Your task to perform on an android device: delete location history Image 0: 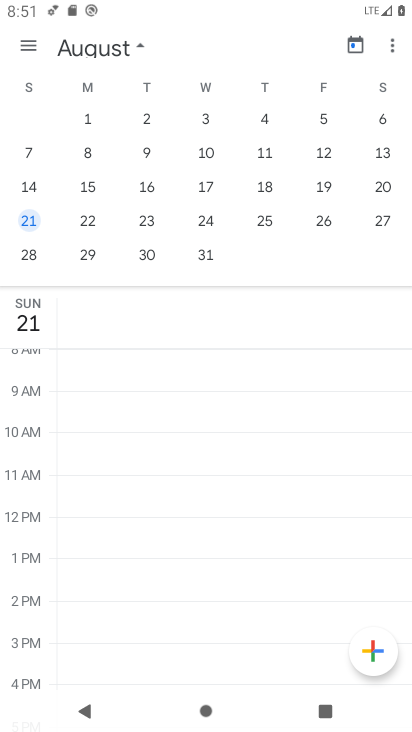
Step 0: press home button
Your task to perform on an android device: delete location history Image 1: 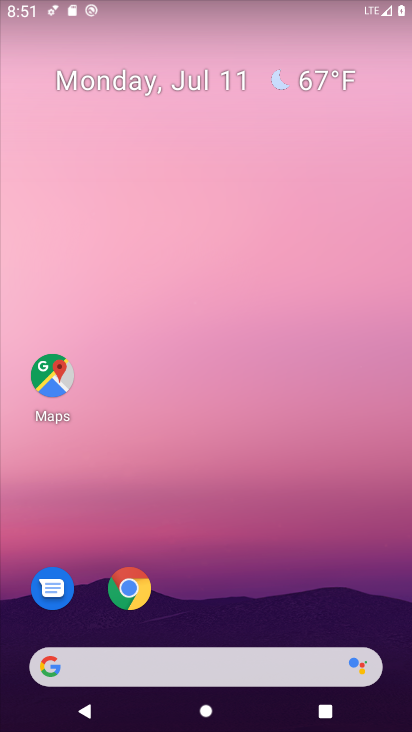
Step 1: click (46, 390)
Your task to perform on an android device: delete location history Image 2: 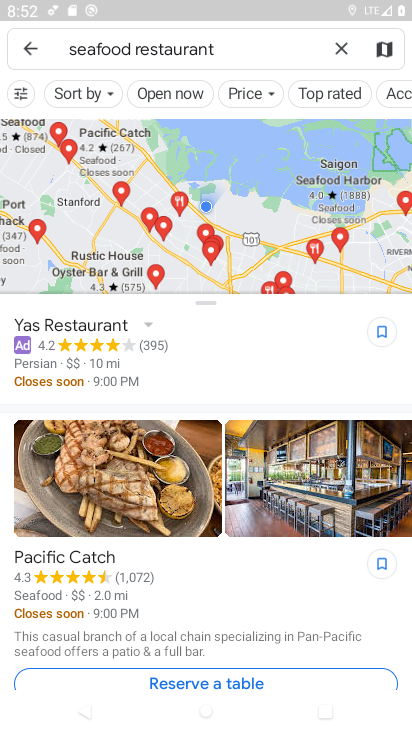
Step 2: click (34, 50)
Your task to perform on an android device: delete location history Image 3: 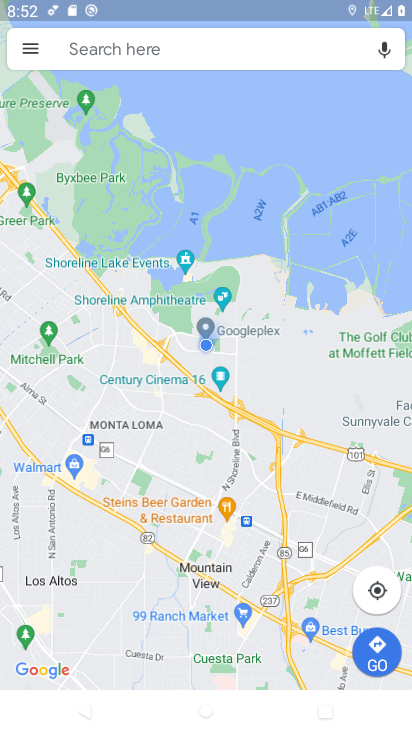
Step 3: click (34, 50)
Your task to perform on an android device: delete location history Image 4: 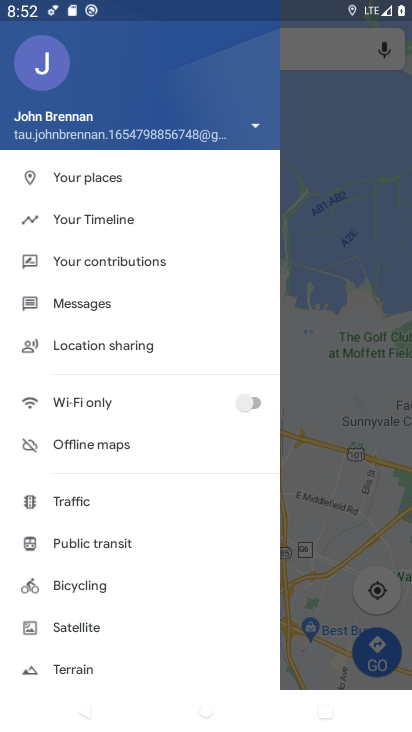
Step 4: click (128, 216)
Your task to perform on an android device: delete location history Image 5: 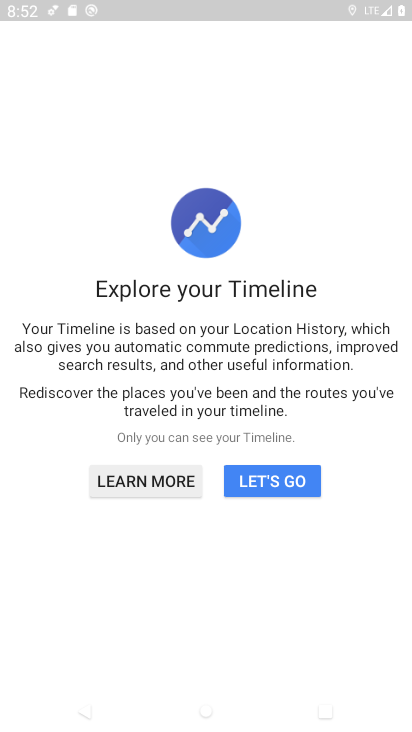
Step 5: click (261, 470)
Your task to perform on an android device: delete location history Image 6: 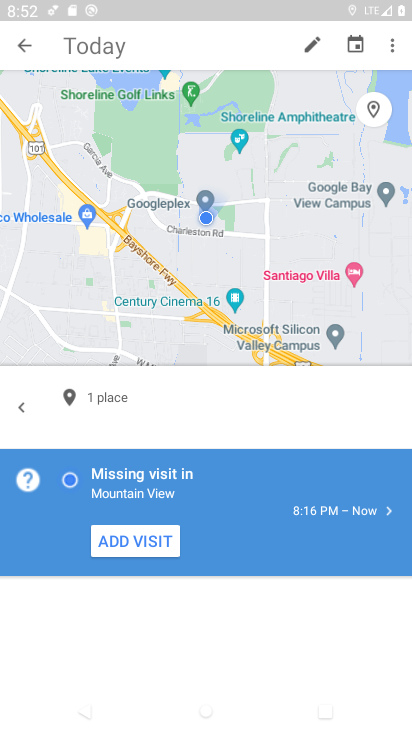
Step 6: click (389, 50)
Your task to perform on an android device: delete location history Image 7: 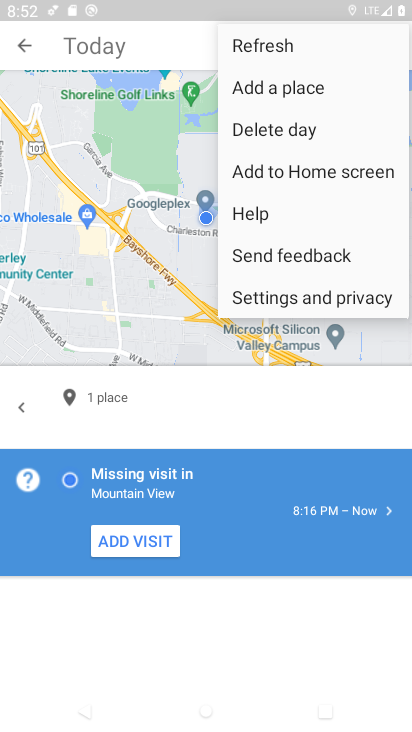
Step 7: click (300, 293)
Your task to perform on an android device: delete location history Image 8: 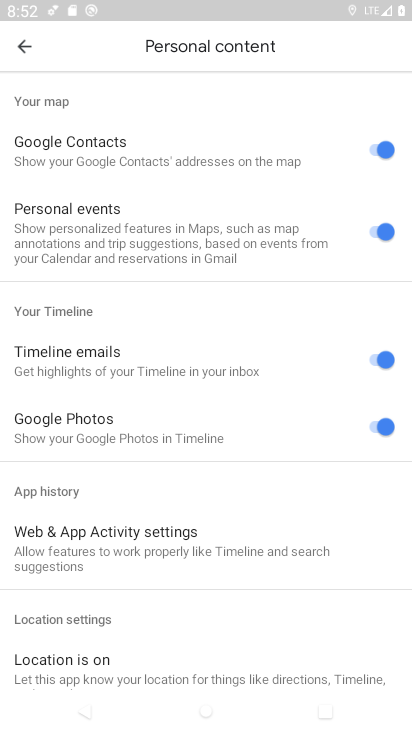
Step 8: drag from (217, 657) to (225, 193)
Your task to perform on an android device: delete location history Image 9: 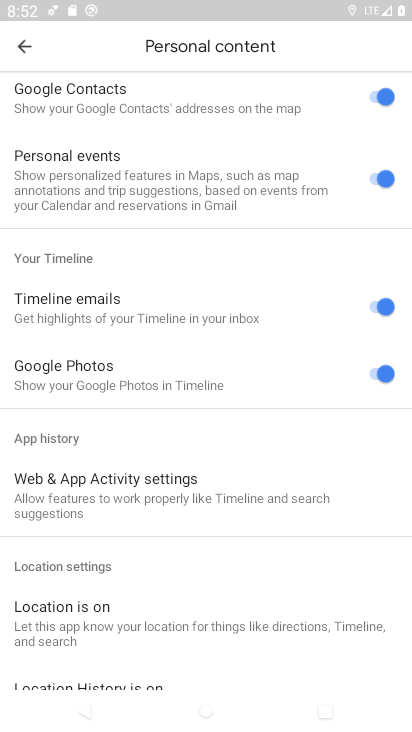
Step 9: drag from (173, 557) to (269, 18)
Your task to perform on an android device: delete location history Image 10: 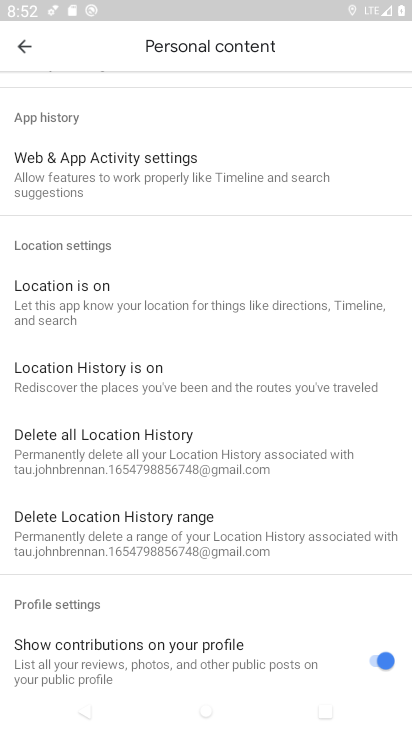
Step 10: click (166, 434)
Your task to perform on an android device: delete location history Image 11: 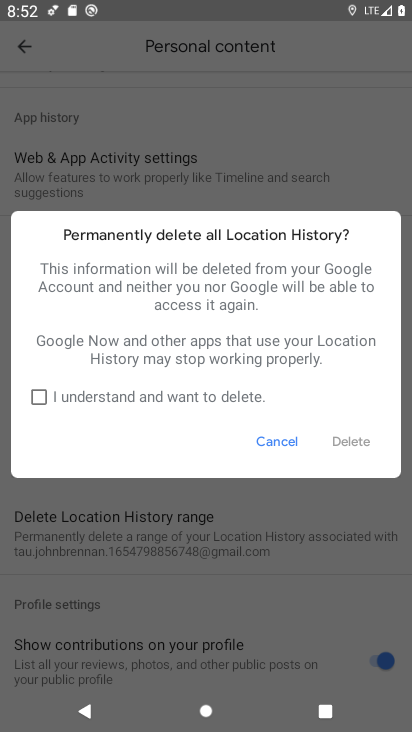
Step 11: click (142, 403)
Your task to perform on an android device: delete location history Image 12: 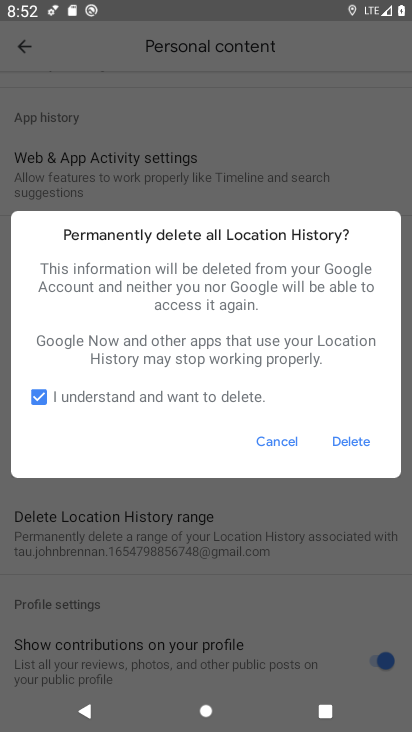
Step 12: click (361, 442)
Your task to perform on an android device: delete location history Image 13: 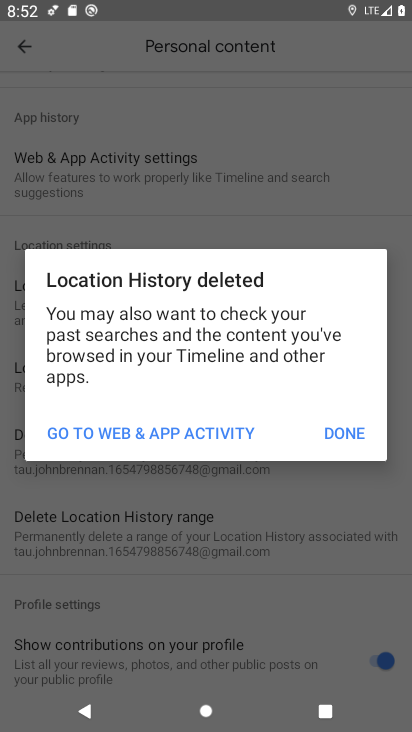
Step 13: click (361, 442)
Your task to perform on an android device: delete location history Image 14: 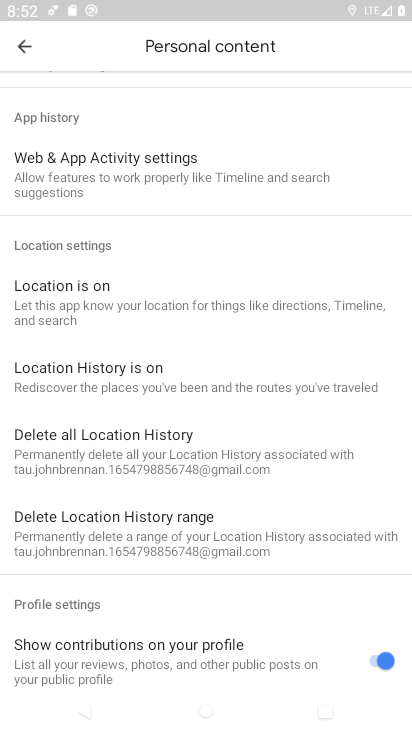
Step 14: task complete